Your task to perform on an android device: delete the emails in spam in the gmail app Image 0: 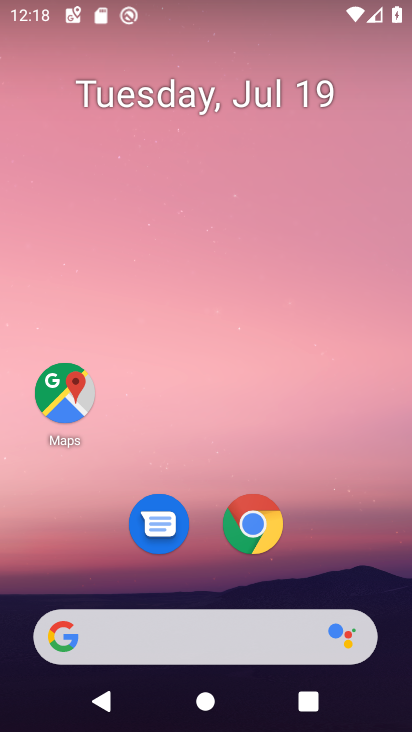
Step 0: drag from (345, 545) to (349, 85)
Your task to perform on an android device: delete the emails in spam in the gmail app Image 1: 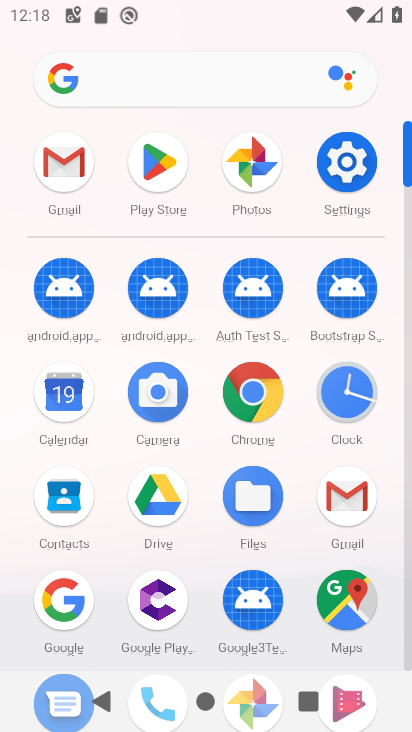
Step 1: click (67, 170)
Your task to perform on an android device: delete the emails in spam in the gmail app Image 2: 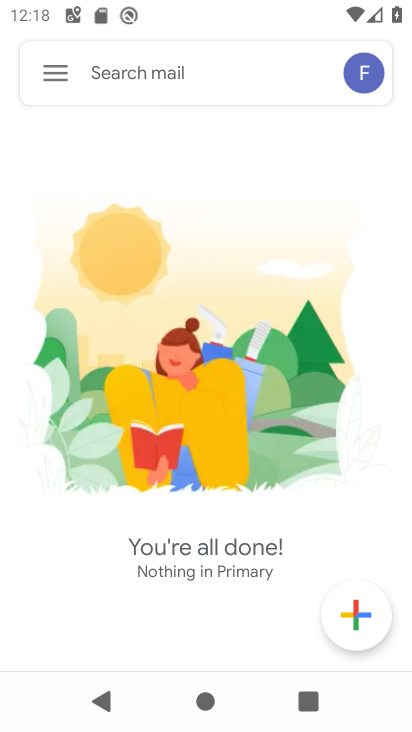
Step 2: click (58, 75)
Your task to perform on an android device: delete the emails in spam in the gmail app Image 3: 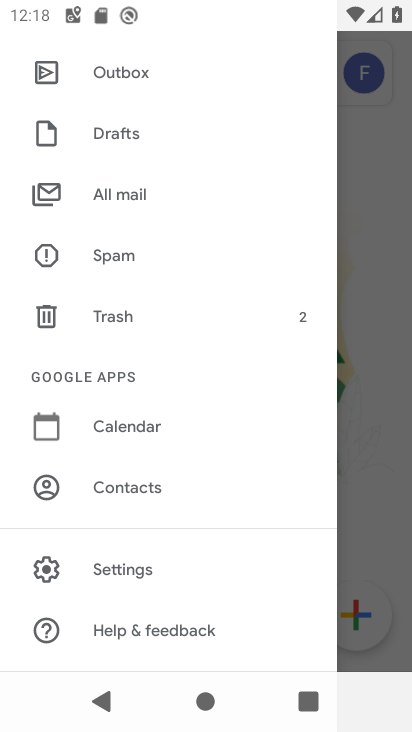
Step 3: click (106, 246)
Your task to perform on an android device: delete the emails in spam in the gmail app Image 4: 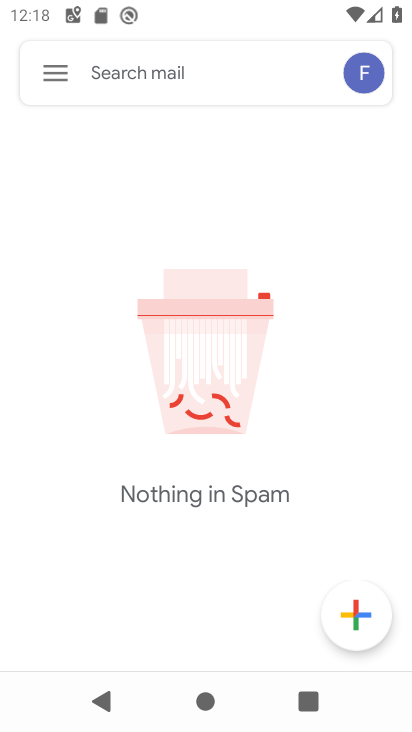
Step 4: task complete